Your task to perform on an android device: check data usage Image 0: 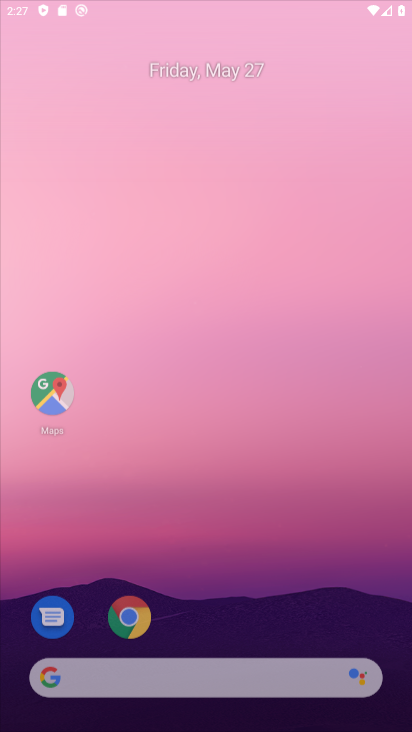
Step 0: click (164, 34)
Your task to perform on an android device: check data usage Image 1: 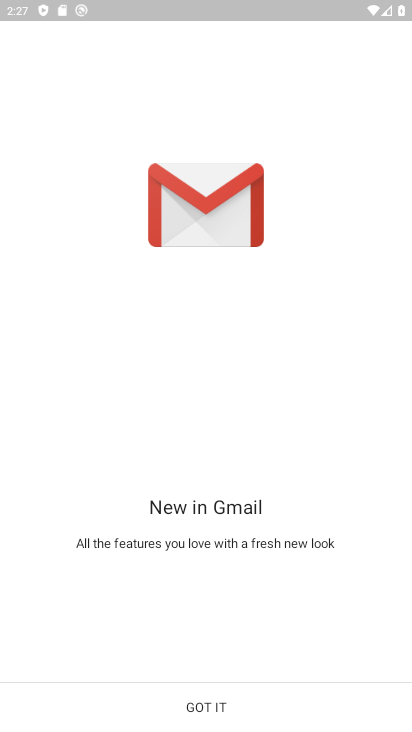
Step 1: press home button
Your task to perform on an android device: check data usage Image 2: 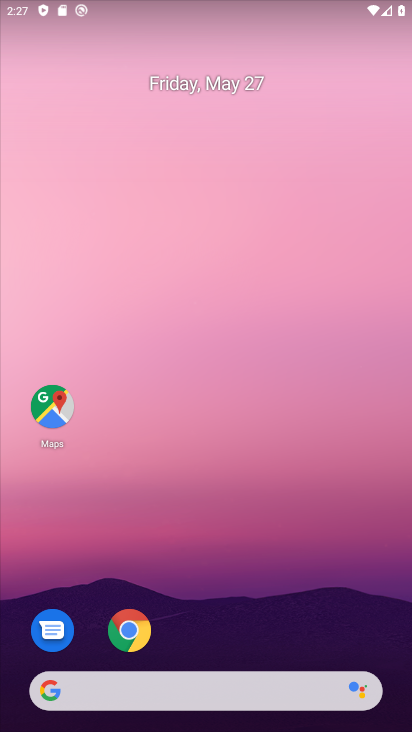
Step 2: drag from (198, 660) to (117, 79)
Your task to perform on an android device: check data usage Image 3: 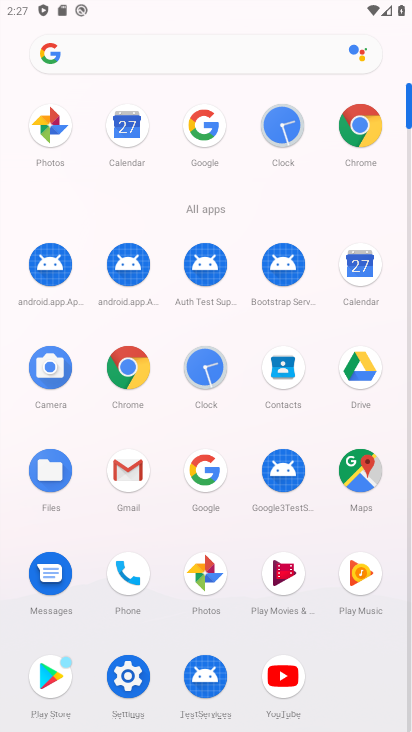
Step 3: click (122, 668)
Your task to perform on an android device: check data usage Image 4: 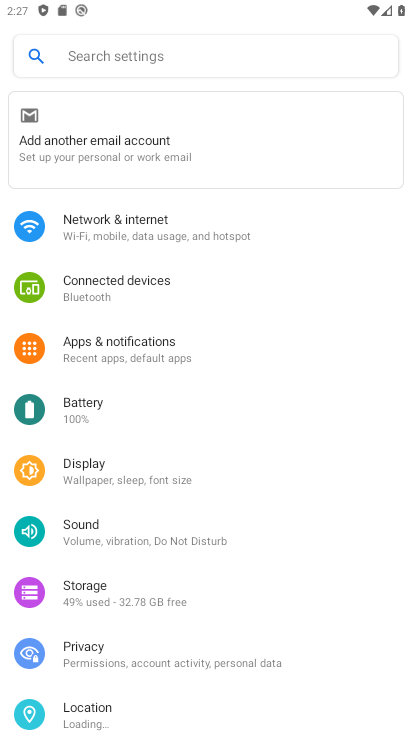
Step 4: click (120, 209)
Your task to perform on an android device: check data usage Image 5: 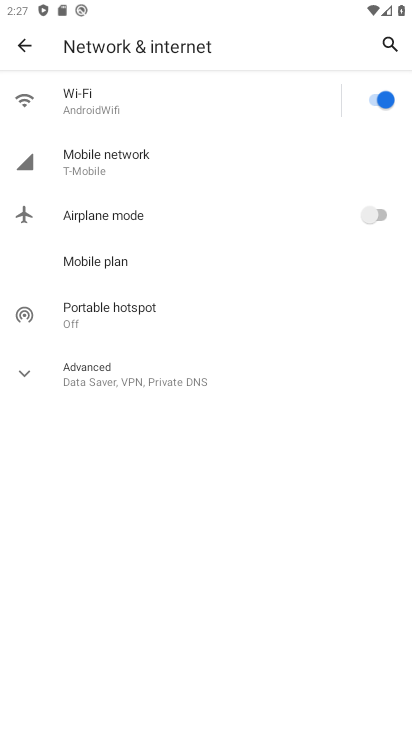
Step 5: click (135, 174)
Your task to perform on an android device: check data usage Image 6: 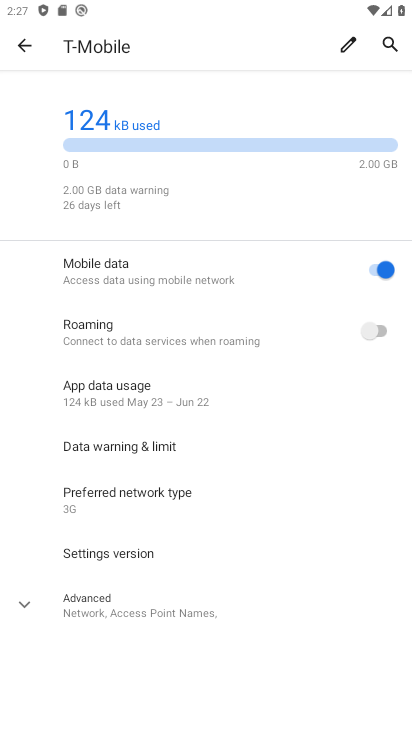
Step 6: task complete